Your task to perform on an android device: show emergency info Image 0: 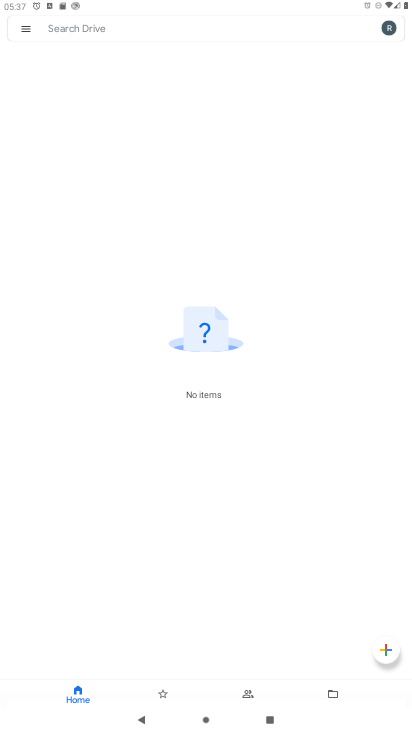
Step 0: press home button
Your task to perform on an android device: show emergency info Image 1: 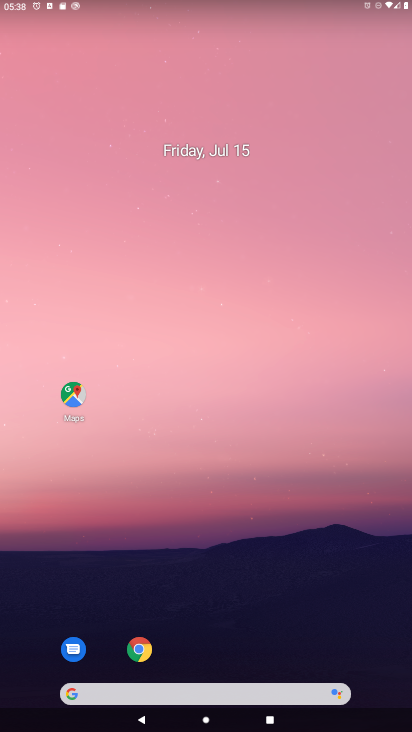
Step 1: drag from (374, 650) to (346, 87)
Your task to perform on an android device: show emergency info Image 2: 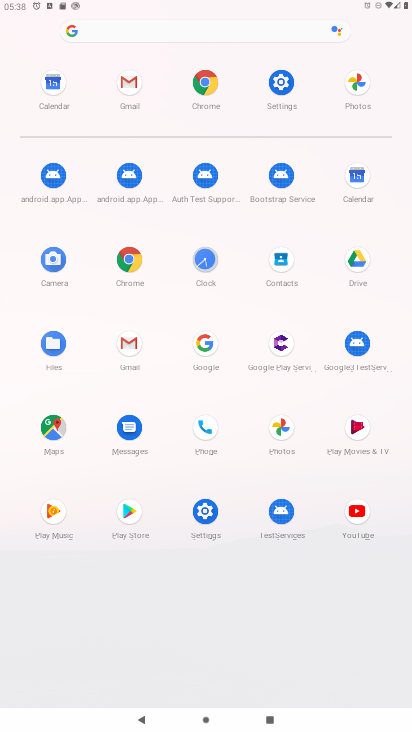
Step 2: click (201, 509)
Your task to perform on an android device: show emergency info Image 3: 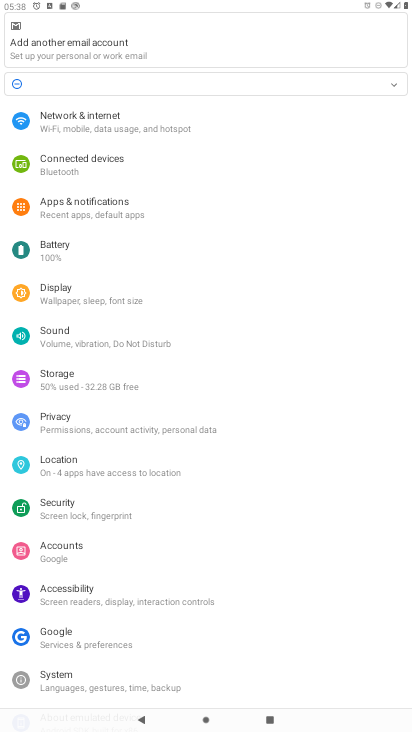
Step 3: drag from (247, 683) to (260, 239)
Your task to perform on an android device: show emergency info Image 4: 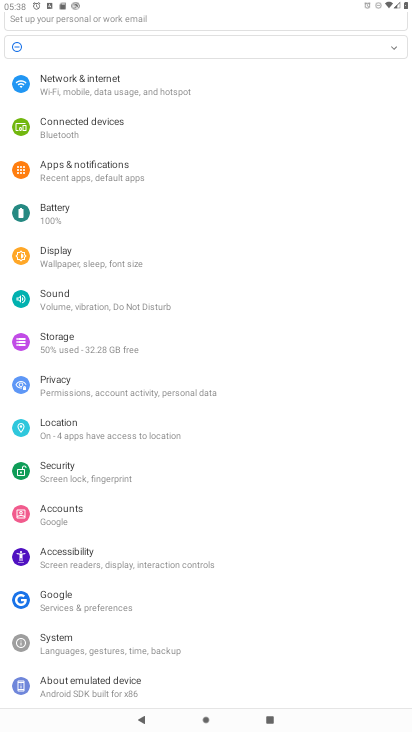
Step 4: click (72, 680)
Your task to perform on an android device: show emergency info Image 5: 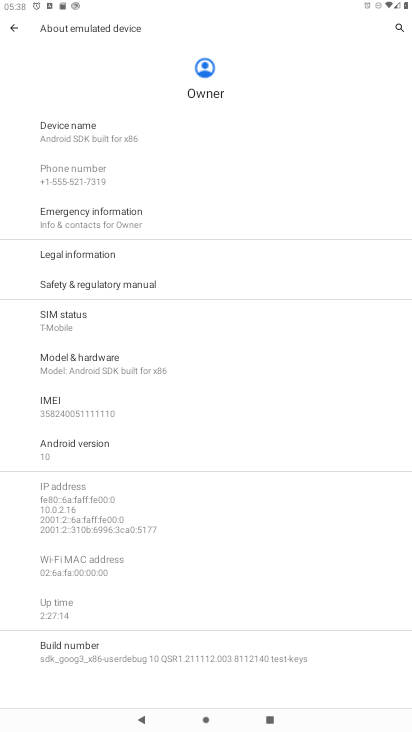
Step 5: click (90, 211)
Your task to perform on an android device: show emergency info Image 6: 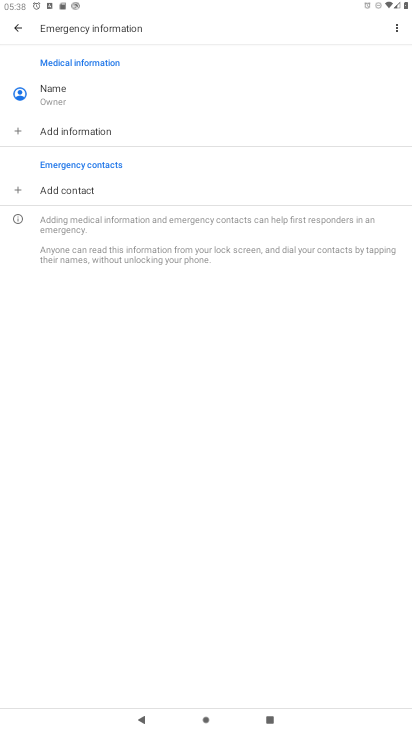
Step 6: task complete